Your task to perform on an android device: Go to network settings Image 0: 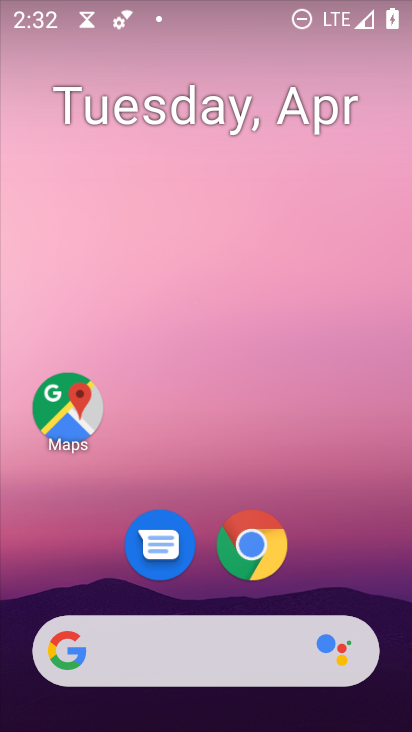
Step 0: drag from (392, 577) to (233, 139)
Your task to perform on an android device: Go to network settings Image 1: 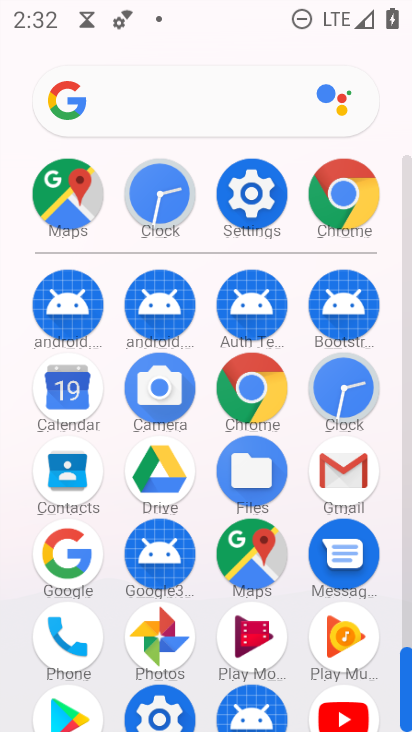
Step 1: click (251, 191)
Your task to perform on an android device: Go to network settings Image 2: 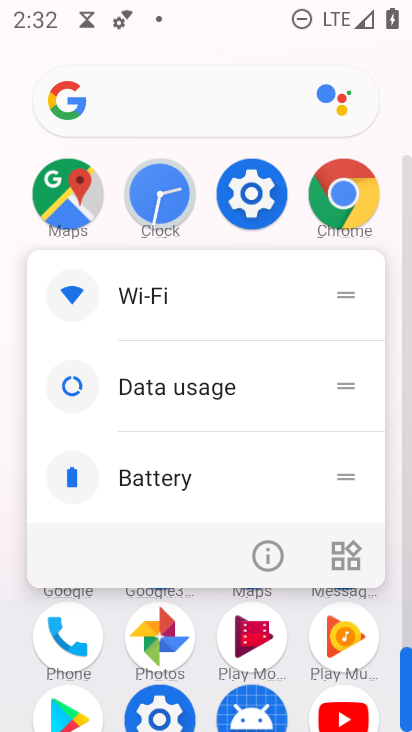
Step 2: click (251, 191)
Your task to perform on an android device: Go to network settings Image 3: 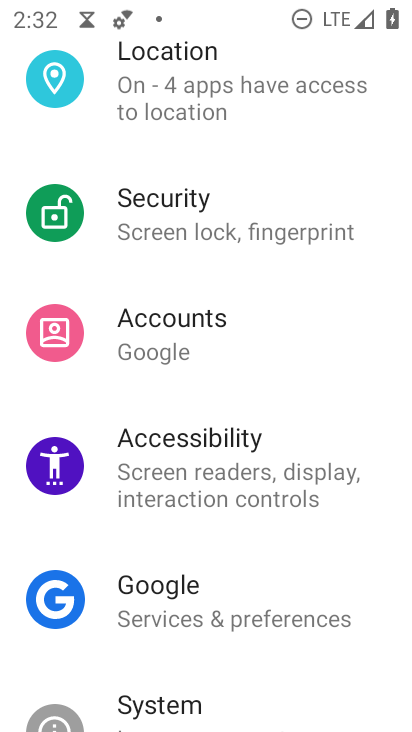
Step 3: drag from (315, 139) to (298, 543)
Your task to perform on an android device: Go to network settings Image 4: 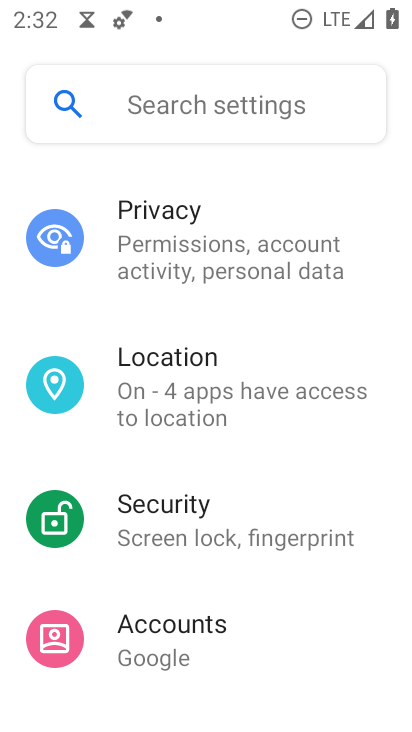
Step 4: drag from (207, 168) to (265, 636)
Your task to perform on an android device: Go to network settings Image 5: 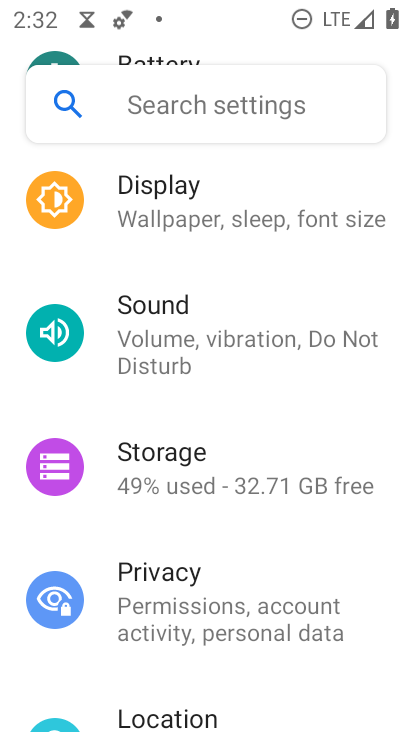
Step 5: drag from (252, 159) to (297, 596)
Your task to perform on an android device: Go to network settings Image 6: 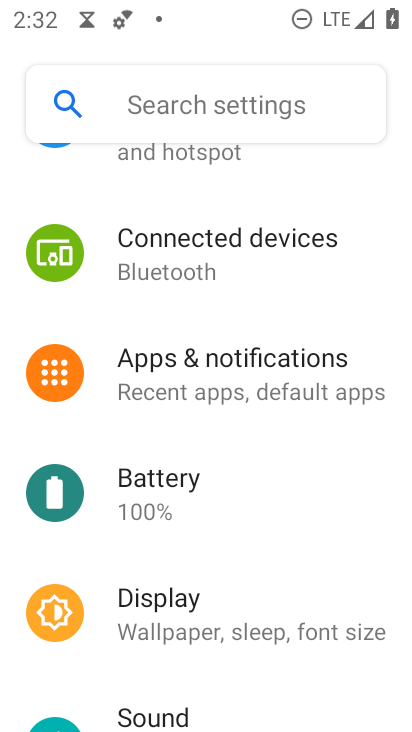
Step 6: drag from (241, 179) to (260, 652)
Your task to perform on an android device: Go to network settings Image 7: 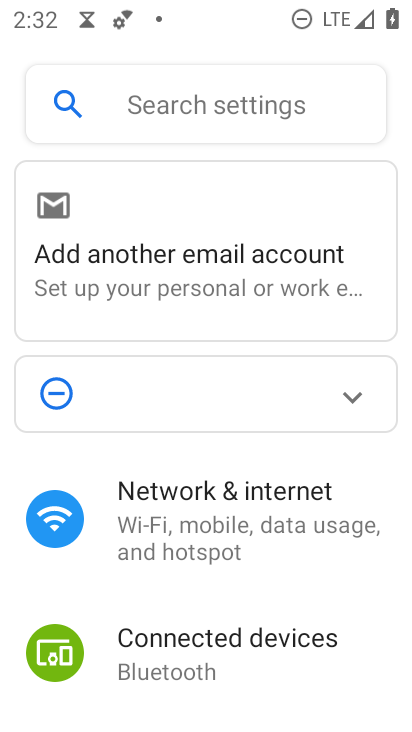
Step 7: click (220, 504)
Your task to perform on an android device: Go to network settings Image 8: 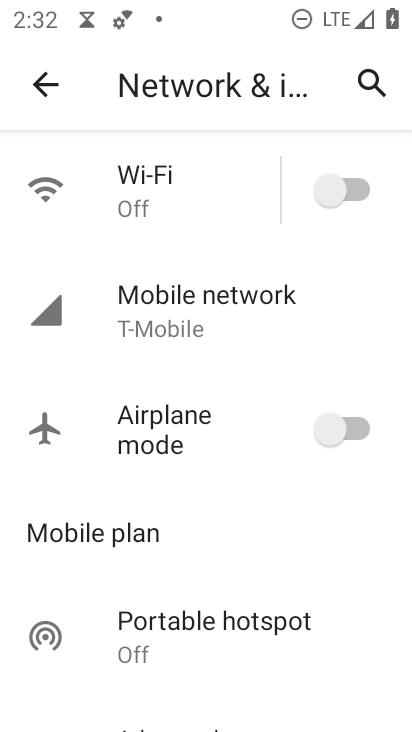
Step 8: drag from (272, 607) to (202, 262)
Your task to perform on an android device: Go to network settings Image 9: 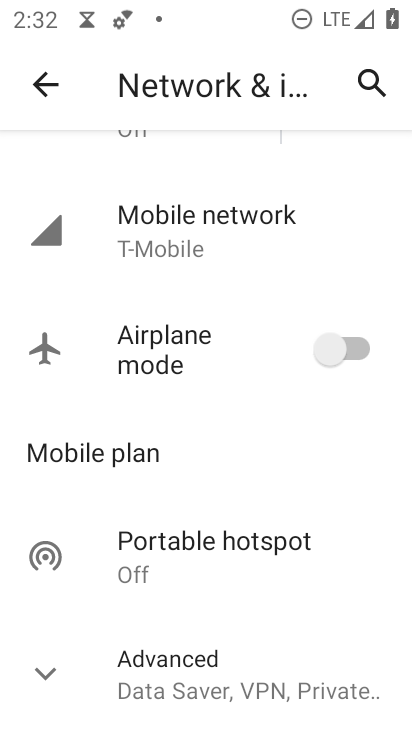
Step 9: drag from (202, 262) to (276, 721)
Your task to perform on an android device: Go to network settings Image 10: 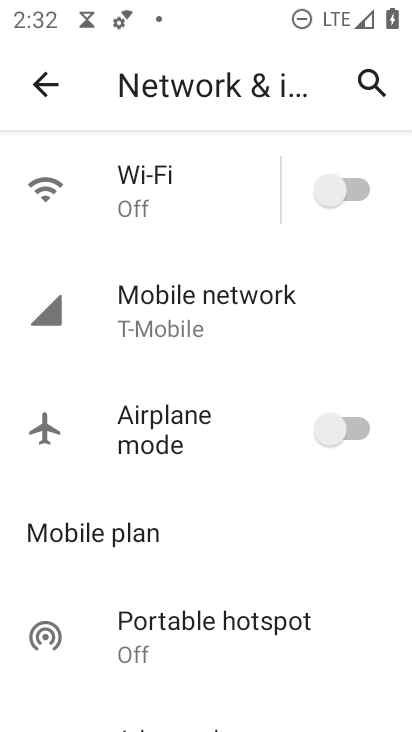
Step 10: click (236, 342)
Your task to perform on an android device: Go to network settings Image 11: 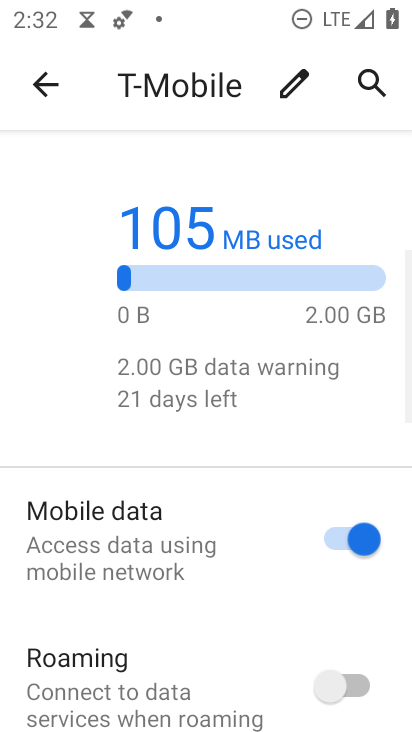
Step 11: task complete